Your task to perform on an android device: turn off location Image 0: 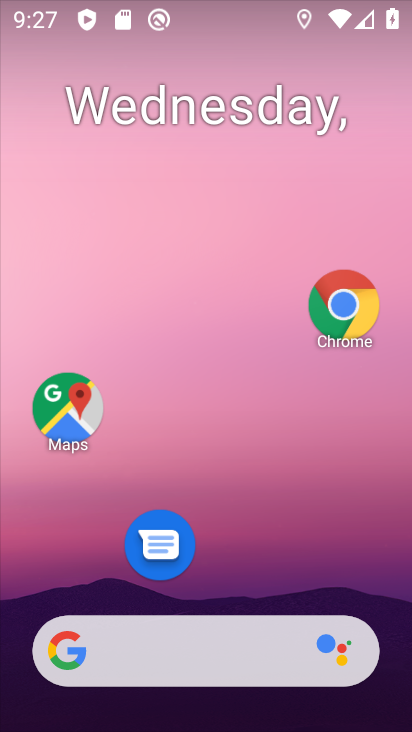
Step 0: drag from (301, 591) to (302, 204)
Your task to perform on an android device: turn off location Image 1: 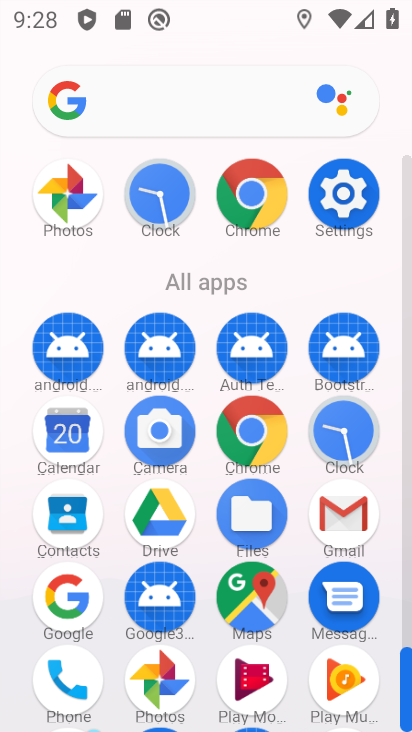
Step 1: click (351, 228)
Your task to perform on an android device: turn off location Image 2: 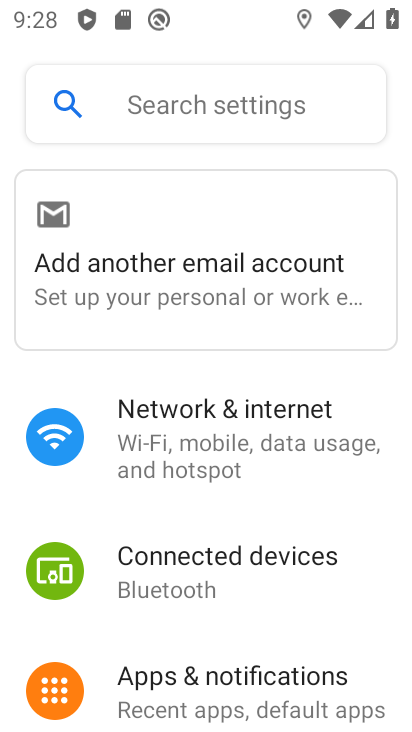
Step 2: drag from (227, 501) to (256, 379)
Your task to perform on an android device: turn off location Image 3: 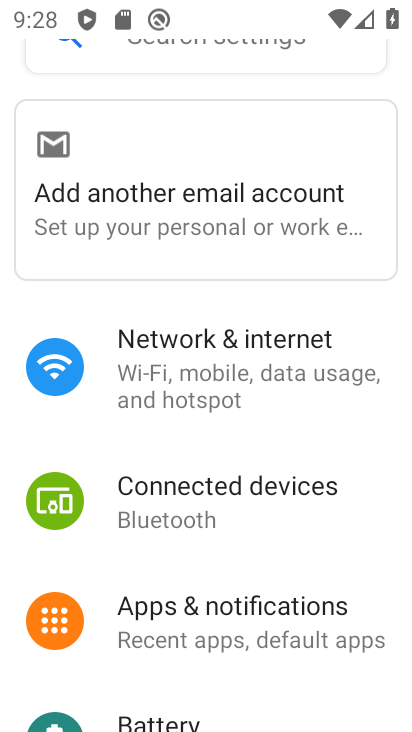
Step 3: drag from (178, 595) to (262, 276)
Your task to perform on an android device: turn off location Image 4: 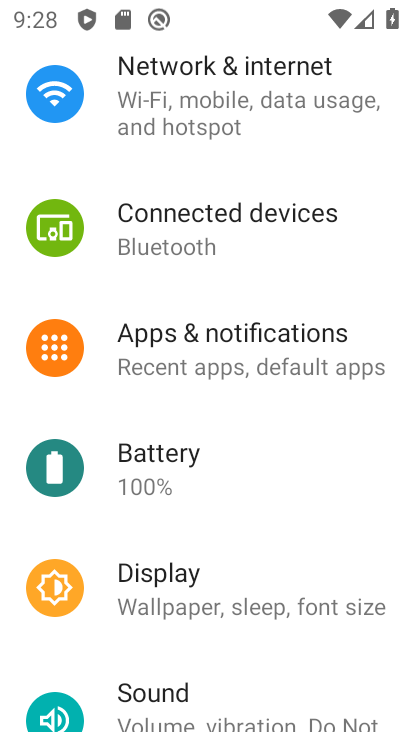
Step 4: drag from (206, 606) to (246, 427)
Your task to perform on an android device: turn off location Image 5: 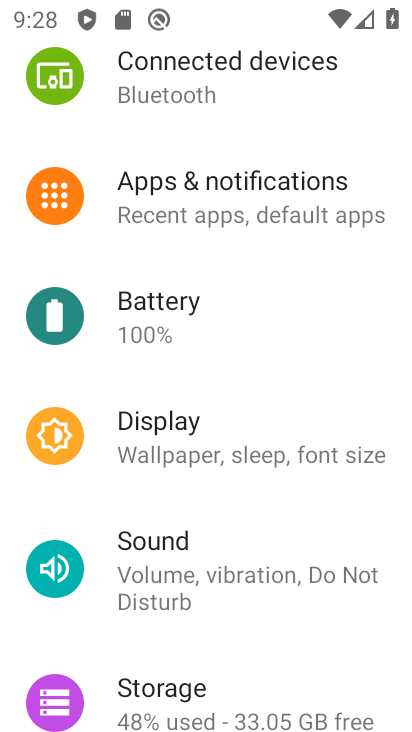
Step 5: drag from (258, 520) to (268, 437)
Your task to perform on an android device: turn off location Image 6: 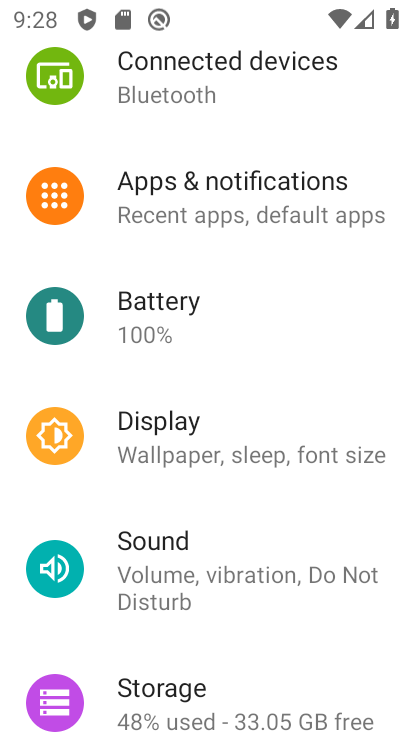
Step 6: drag from (227, 537) to (293, 222)
Your task to perform on an android device: turn off location Image 7: 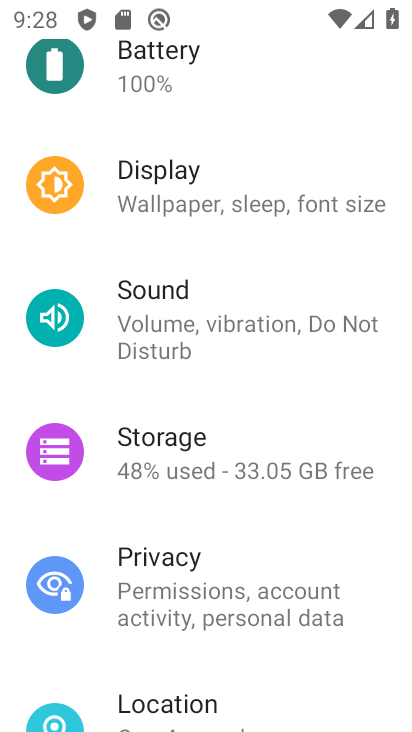
Step 7: drag from (190, 573) to (232, 308)
Your task to perform on an android device: turn off location Image 8: 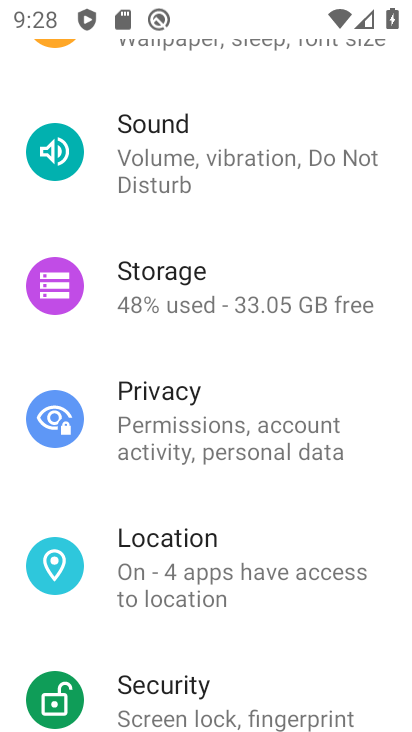
Step 8: click (196, 559)
Your task to perform on an android device: turn off location Image 9: 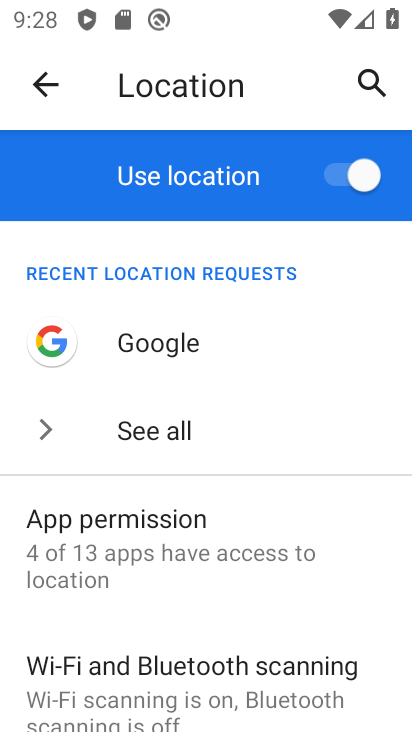
Step 9: drag from (229, 600) to (350, 242)
Your task to perform on an android device: turn off location Image 10: 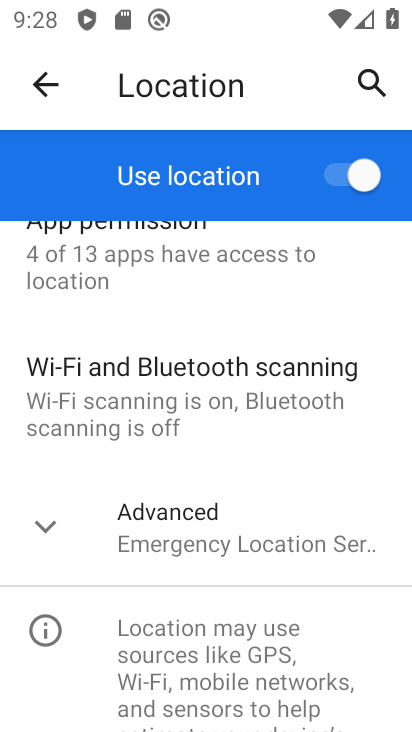
Step 10: click (338, 179)
Your task to perform on an android device: turn off location Image 11: 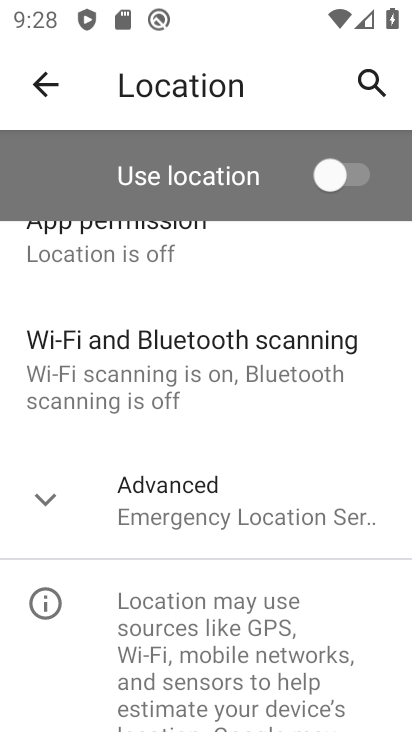
Step 11: task complete